Your task to perform on an android device: Open settings Image 0: 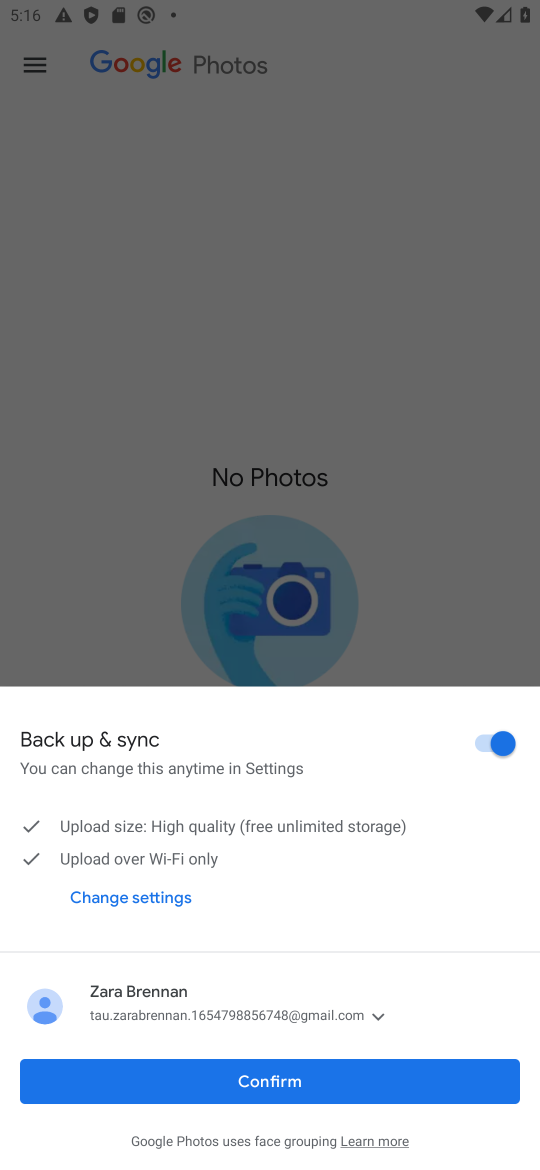
Step 0: press home button
Your task to perform on an android device: Open settings Image 1: 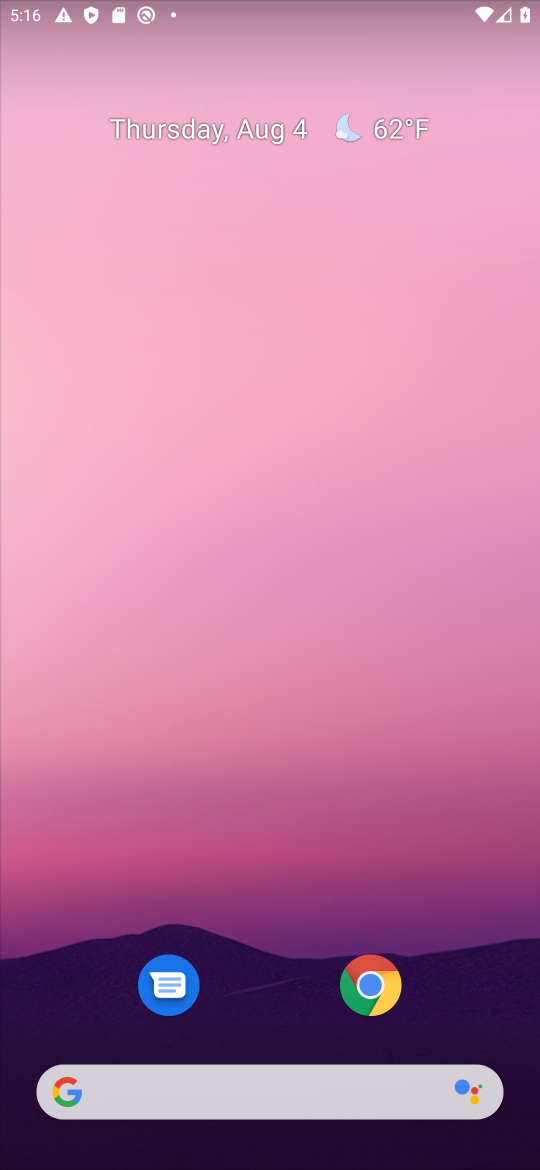
Step 1: drag from (344, 1102) to (330, 120)
Your task to perform on an android device: Open settings Image 2: 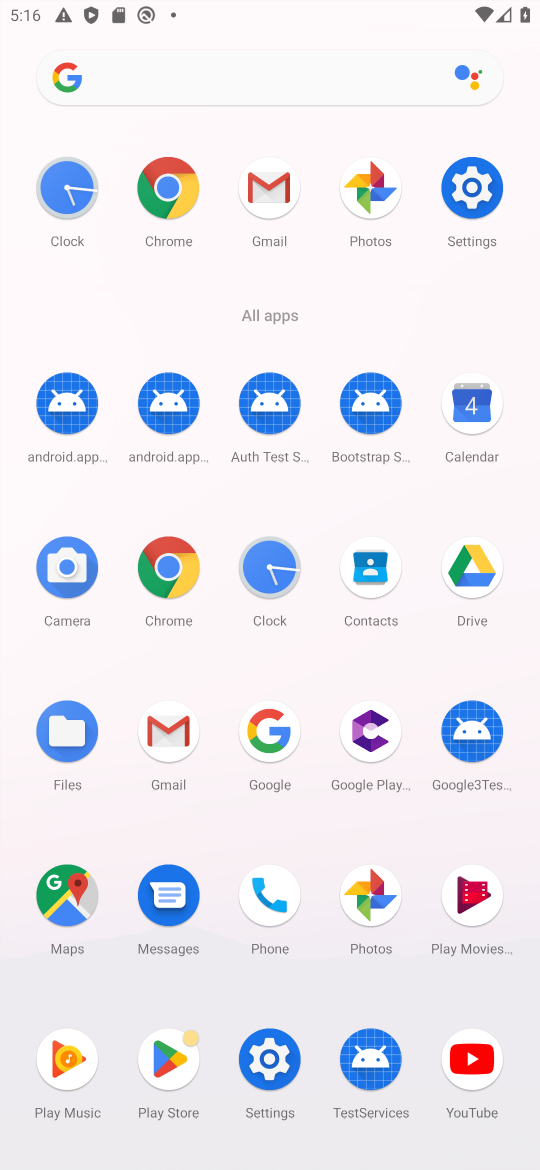
Step 2: click (469, 175)
Your task to perform on an android device: Open settings Image 3: 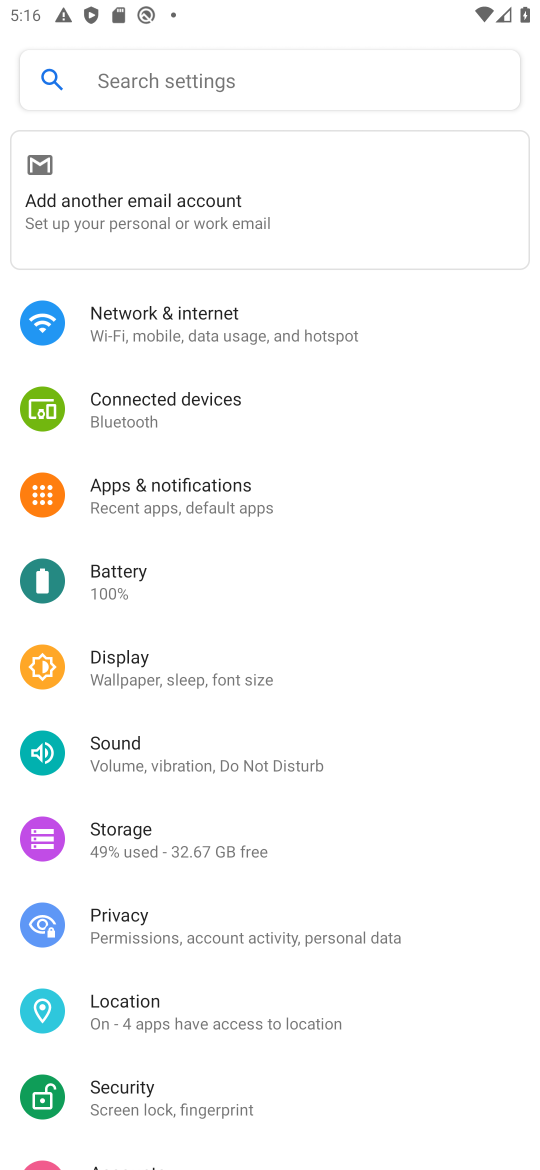
Step 3: task complete